Your task to perform on an android device: toggle priority inbox in the gmail app Image 0: 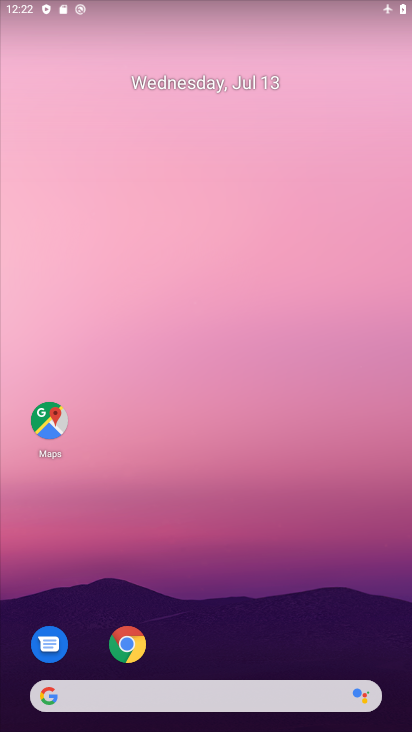
Step 0: drag from (322, 583) to (259, 107)
Your task to perform on an android device: toggle priority inbox in the gmail app Image 1: 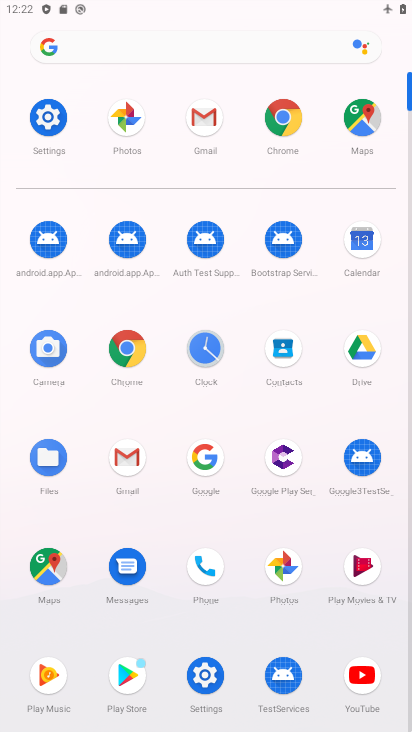
Step 1: click (198, 111)
Your task to perform on an android device: toggle priority inbox in the gmail app Image 2: 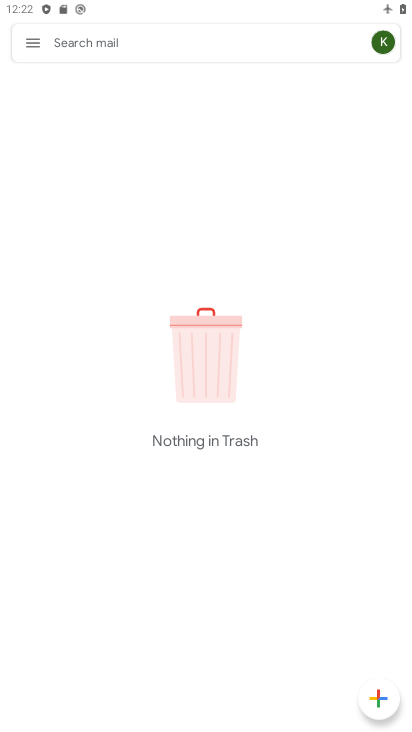
Step 2: click (38, 39)
Your task to perform on an android device: toggle priority inbox in the gmail app Image 3: 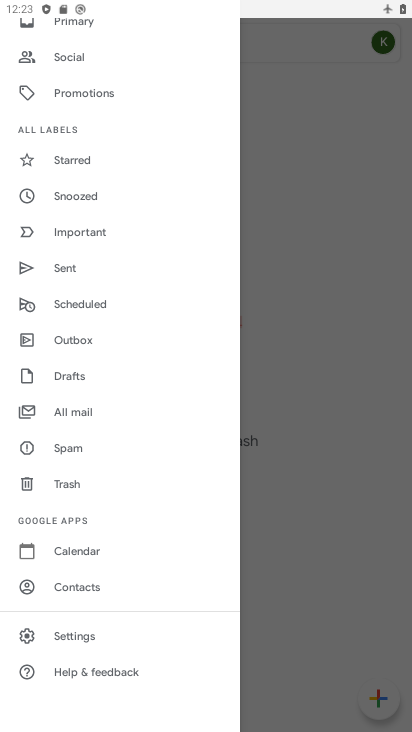
Step 3: click (74, 634)
Your task to perform on an android device: toggle priority inbox in the gmail app Image 4: 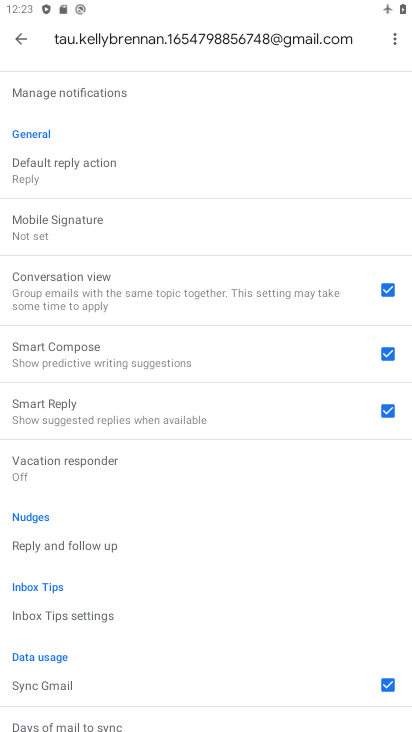
Step 4: drag from (151, 152) to (151, 731)
Your task to perform on an android device: toggle priority inbox in the gmail app Image 5: 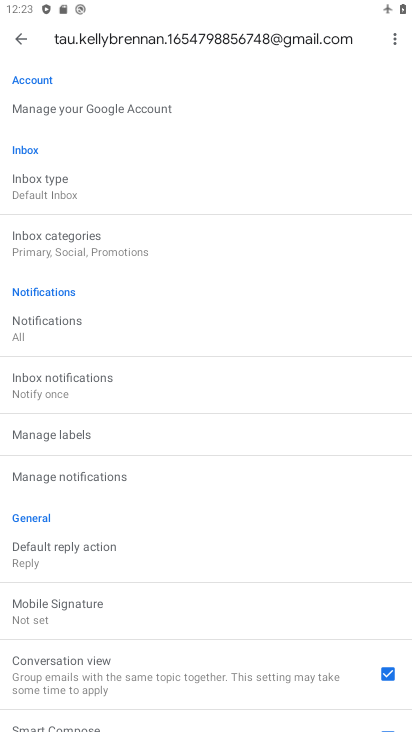
Step 5: click (56, 188)
Your task to perform on an android device: toggle priority inbox in the gmail app Image 6: 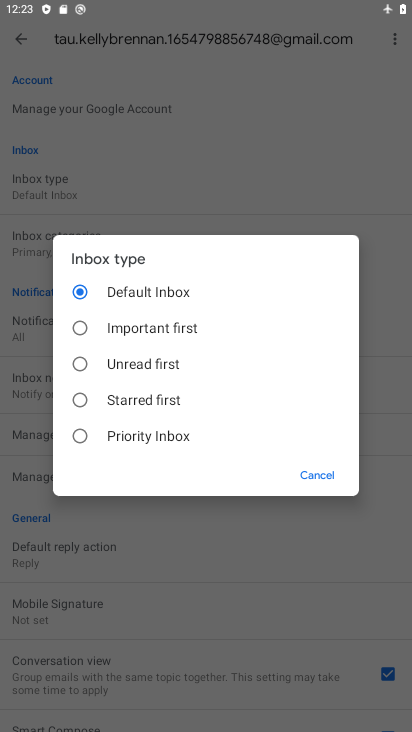
Step 6: click (141, 438)
Your task to perform on an android device: toggle priority inbox in the gmail app Image 7: 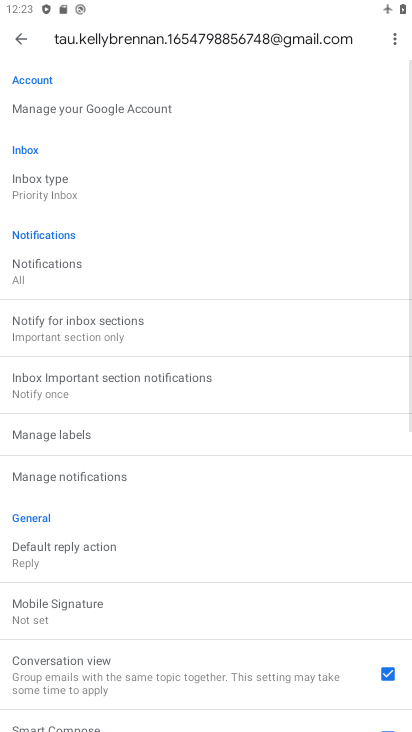
Step 7: task complete